Your task to perform on an android device: stop showing notifications on the lock screen Image 0: 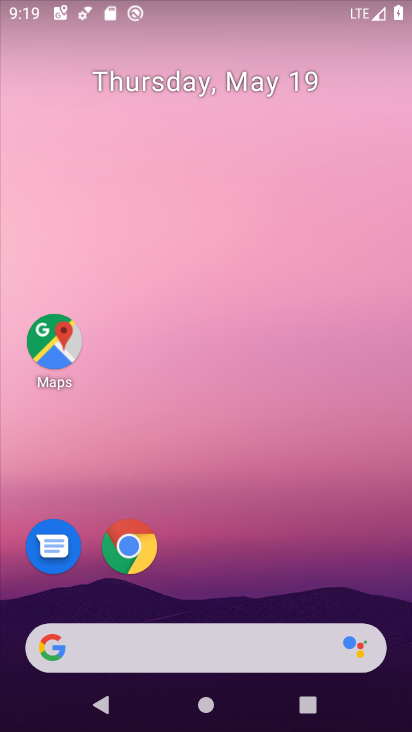
Step 0: click (199, 71)
Your task to perform on an android device: stop showing notifications on the lock screen Image 1: 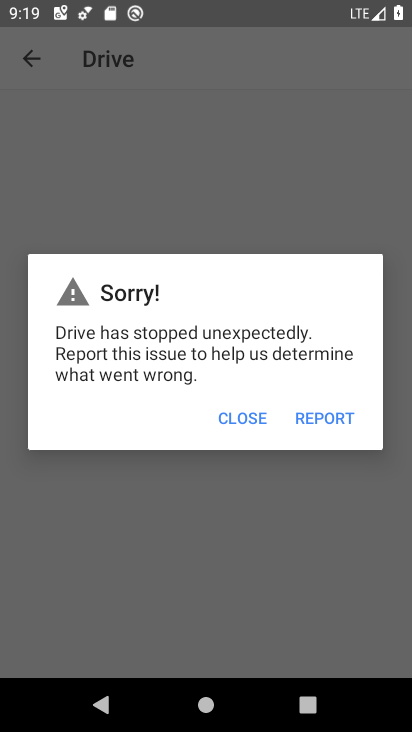
Step 1: click (239, 413)
Your task to perform on an android device: stop showing notifications on the lock screen Image 2: 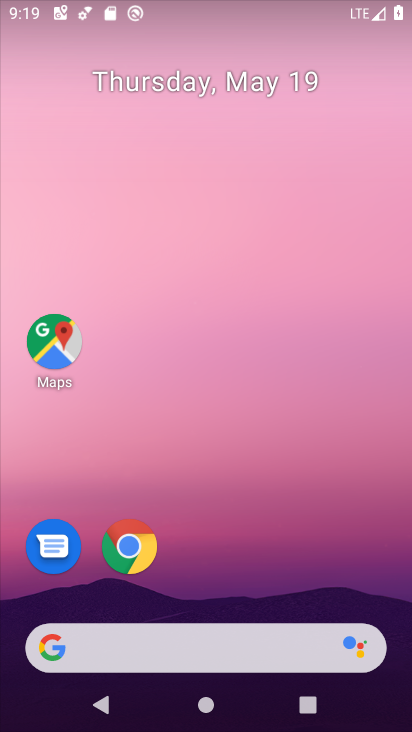
Step 2: drag from (260, 584) to (221, 189)
Your task to perform on an android device: stop showing notifications on the lock screen Image 3: 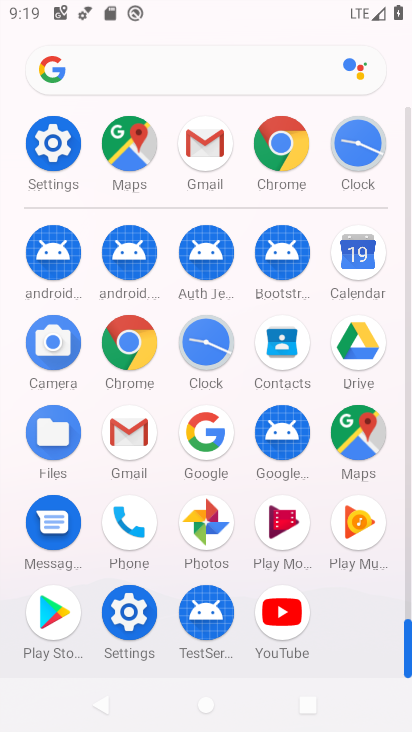
Step 3: click (128, 623)
Your task to perform on an android device: stop showing notifications on the lock screen Image 4: 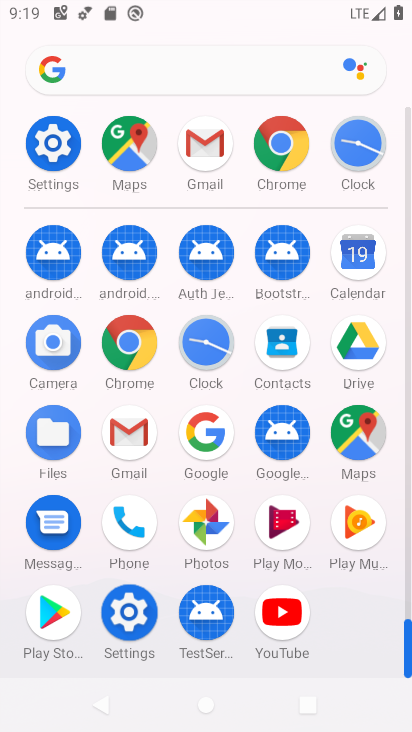
Step 4: click (132, 622)
Your task to perform on an android device: stop showing notifications on the lock screen Image 5: 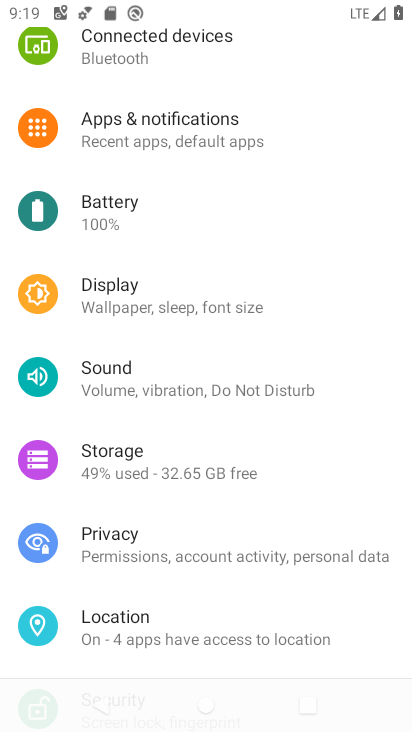
Step 5: click (156, 139)
Your task to perform on an android device: stop showing notifications on the lock screen Image 6: 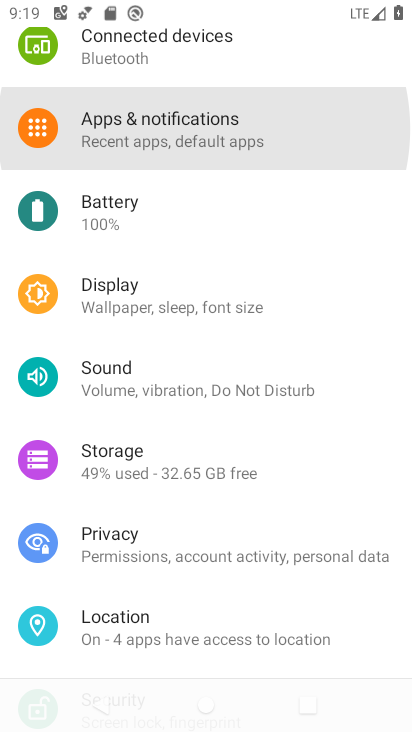
Step 6: click (156, 139)
Your task to perform on an android device: stop showing notifications on the lock screen Image 7: 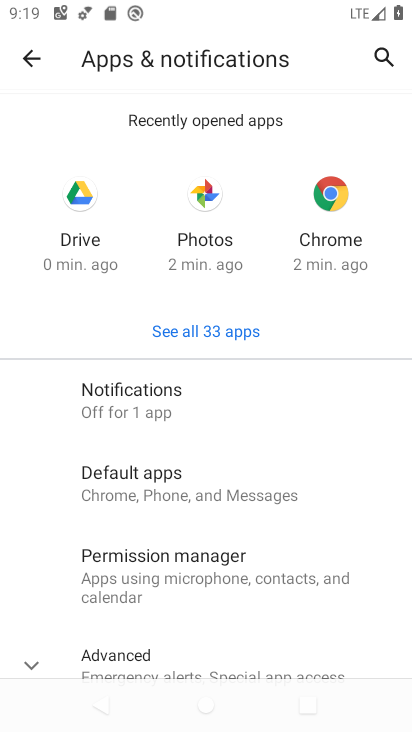
Step 7: click (136, 405)
Your task to perform on an android device: stop showing notifications on the lock screen Image 8: 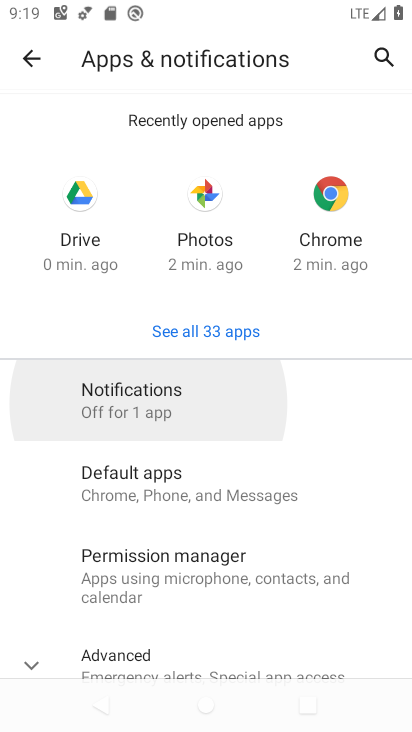
Step 8: click (138, 403)
Your task to perform on an android device: stop showing notifications on the lock screen Image 9: 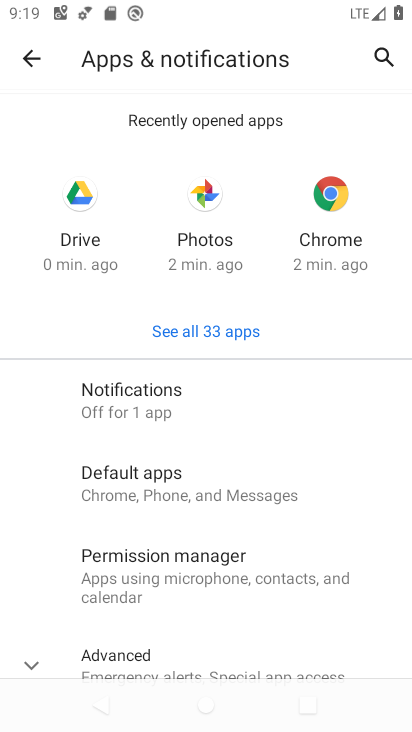
Step 9: click (138, 403)
Your task to perform on an android device: stop showing notifications on the lock screen Image 10: 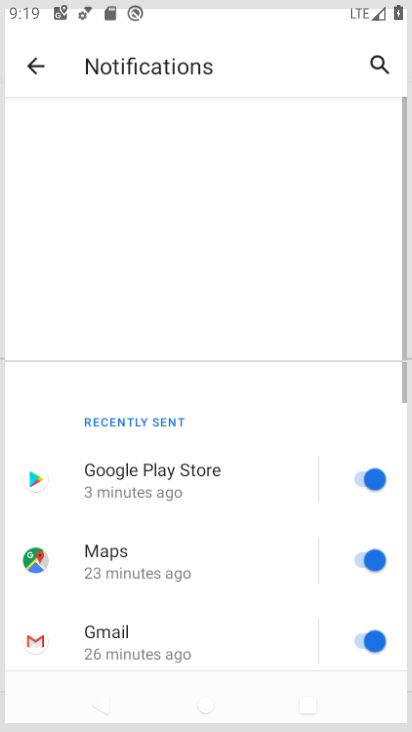
Step 10: click (138, 403)
Your task to perform on an android device: stop showing notifications on the lock screen Image 11: 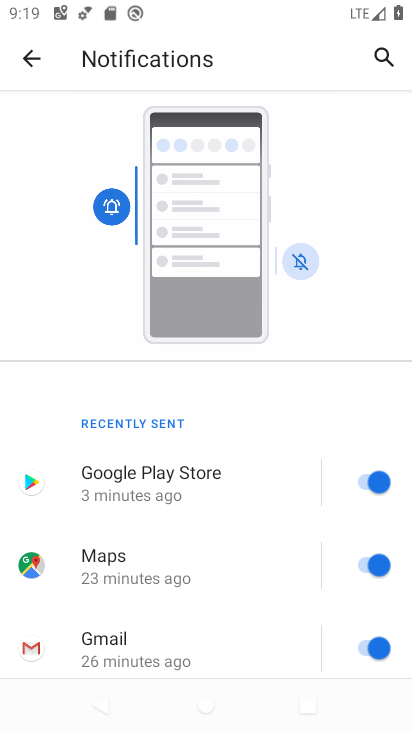
Step 11: drag from (196, 654) to (186, 231)
Your task to perform on an android device: stop showing notifications on the lock screen Image 12: 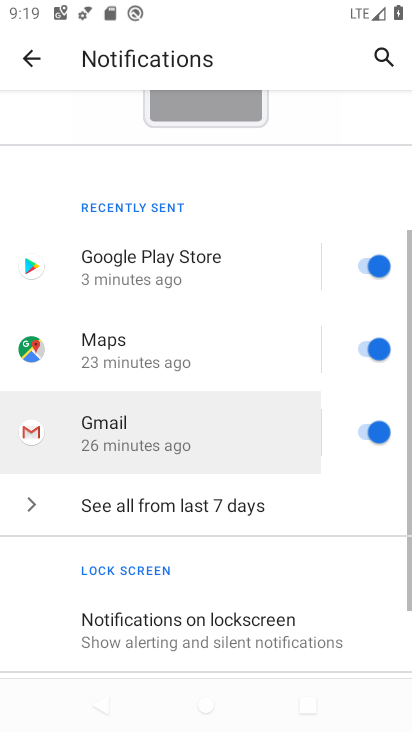
Step 12: drag from (267, 504) to (307, 31)
Your task to perform on an android device: stop showing notifications on the lock screen Image 13: 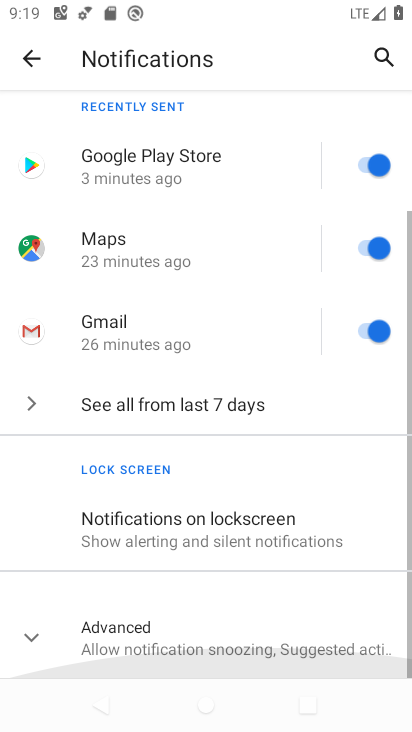
Step 13: drag from (291, 362) to (273, 16)
Your task to perform on an android device: stop showing notifications on the lock screen Image 14: 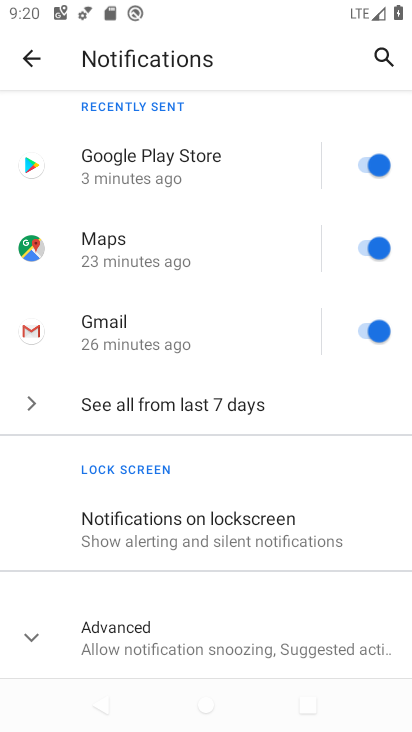
Step 14: click (167, 531)
Your task to perform on an android device: stop showing notifications on the lock screen Image 15: 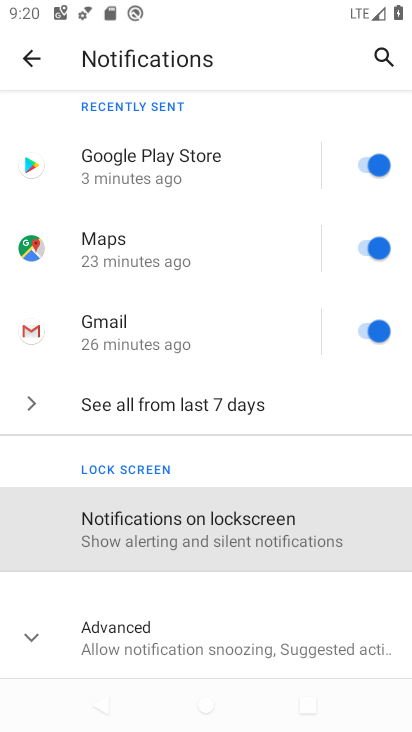
Step 15: click (163, 526)
Your task to perform on an android device: stop showing notifications on the lock screen Image 16: 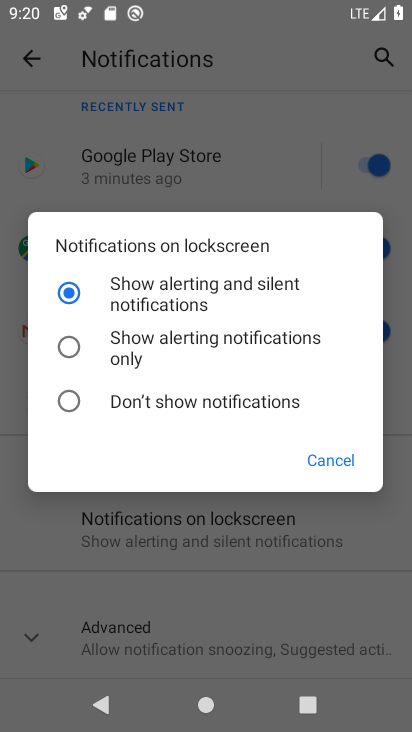
Step 16: click (335, 460)
Your task to perform on an android device: stop showing notifications on the lock screen Image 17: 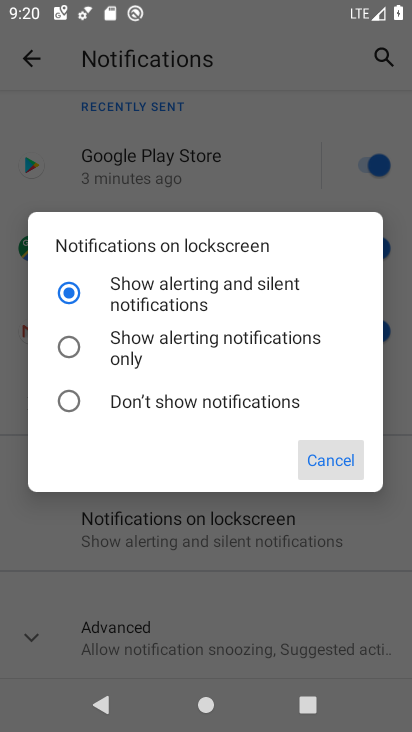
Step 17: click (333, 458)
Your task to perform on an android device: stop showing notifications on the lock screen Image 18: 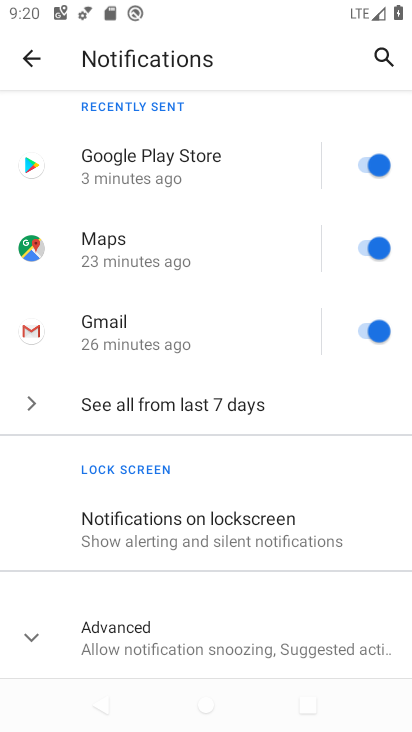
Step 18: click (333, 458)
Your task to perform on an android device: stop showing notifications on the lock screen Image 19: 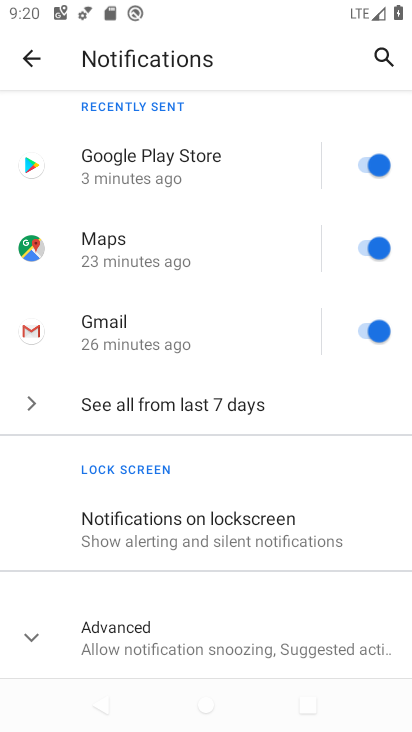
Step 19: task complete